Your task to perform on an android device: Do I have any events today? Image 0: 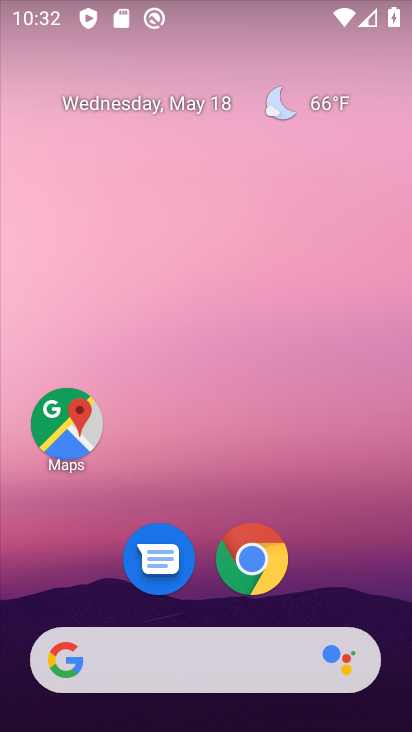
Step 0: drag from (216, 576) to (282, 203)
Your task to perform on an android device: Do I have any events today? Image 1: 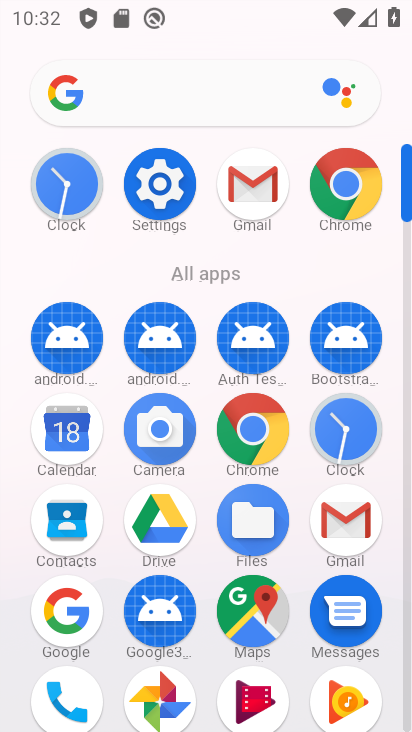
Step 1: click (58, 440)
Your task to perform on an android device: Do I have any events today? Image 2: 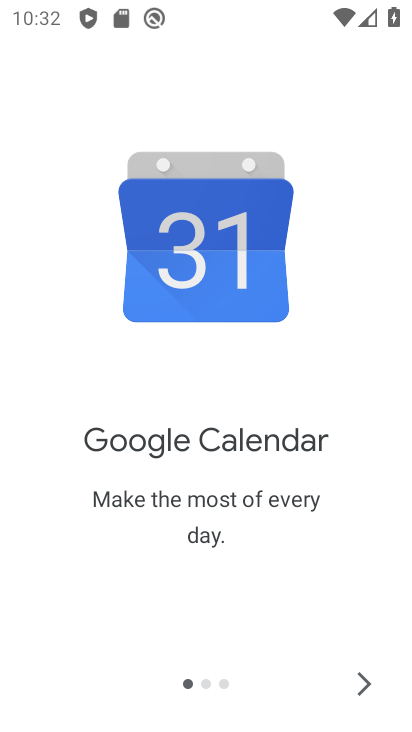
Step 2: click (351, 690)
Your task to perform on an android device: Do I have any events today? Image 3: 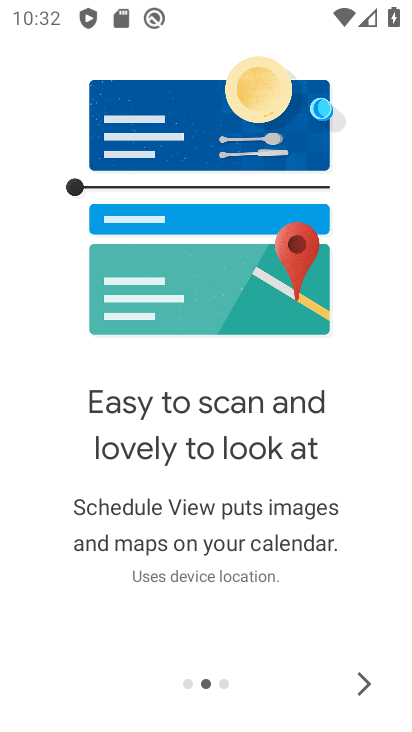
Step 3: click (352, 688)
Your task to perform on an android device: Do I have any events today? Image 4: 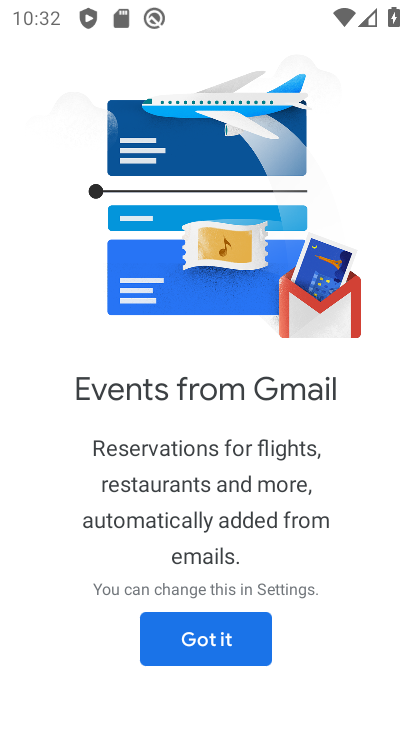
Step 4: click (207, 634)
Your task to perform on an android device: Do I have any events today? Image 5: 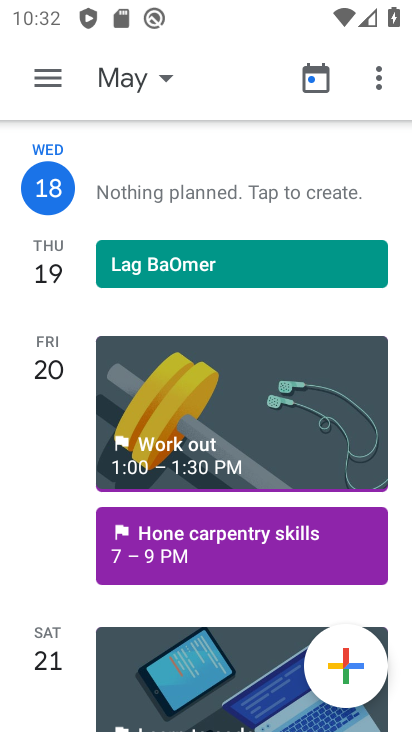
Step 5: click (138, 84)
Your task to perform on an android device: Do I have any events today? Image 6: 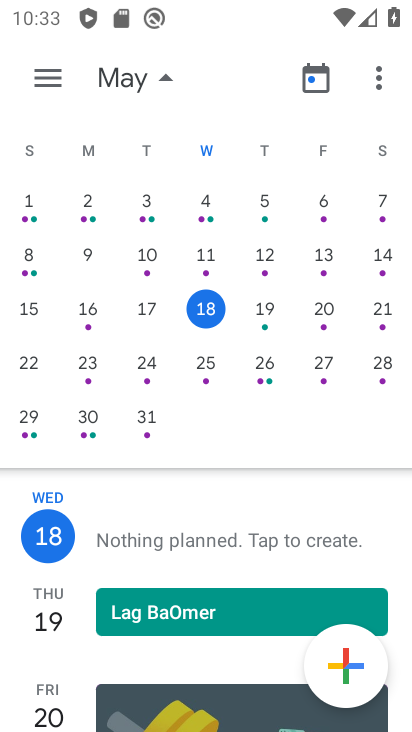
Step 6: click (256, 307)
Your task to perform on an android device: Do I have any events today? Image 7: 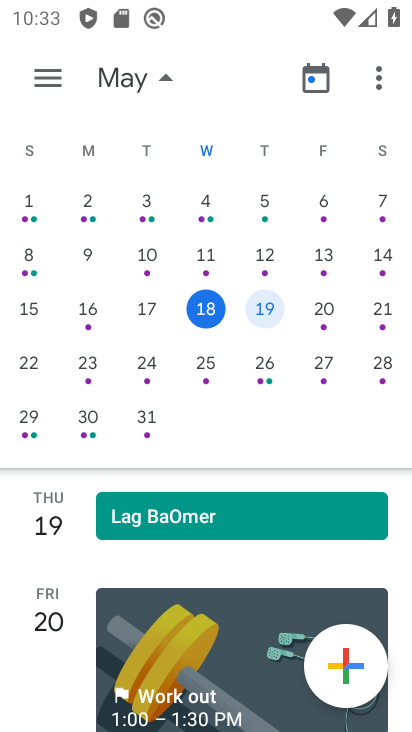
Step 7: task complete